Your task to perform on an android device: Go to location settings Image 0: 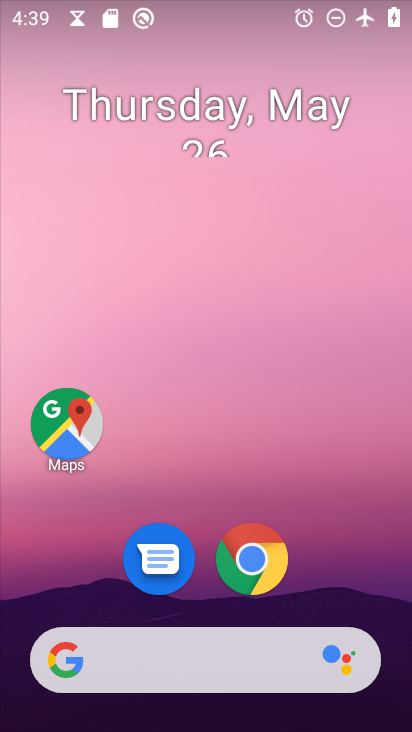
Step 0: drag from (363, 561) to (243, 6)
Your task to perform on an android device: Go to location settings Image 1: 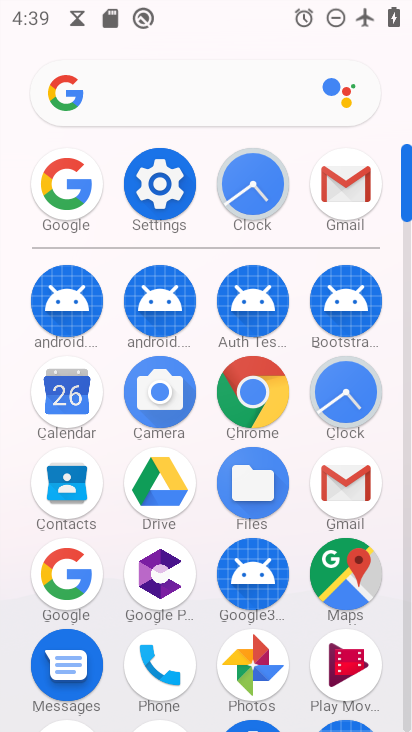
Step 1: click (161, 191)
Your task to perform on an android device: Go to location settings Image 2: 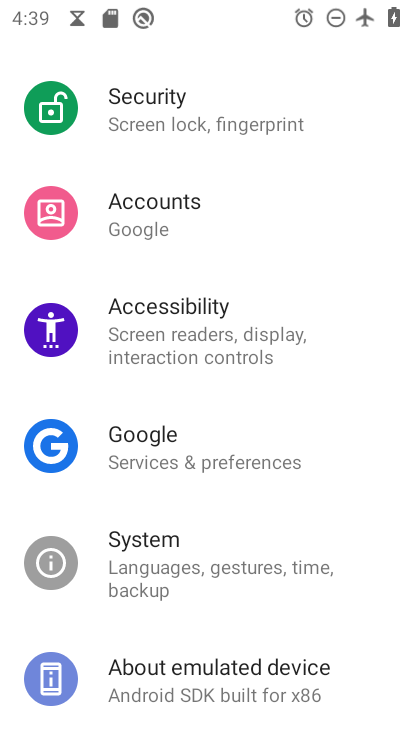
Step 2: drag from (238, 595) to (241, 168)
Your task to perform on an android device: Go to location settings Image 3: 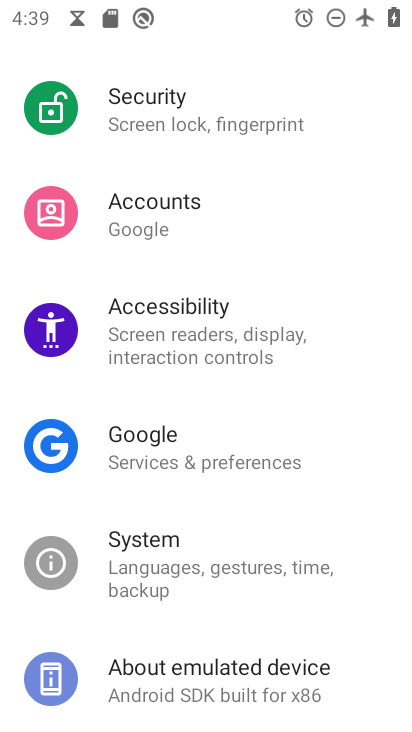
Step 3: drag from (275, 207) to (210, 728)
Your task to perform on an android device: Go to location settings Image 4: 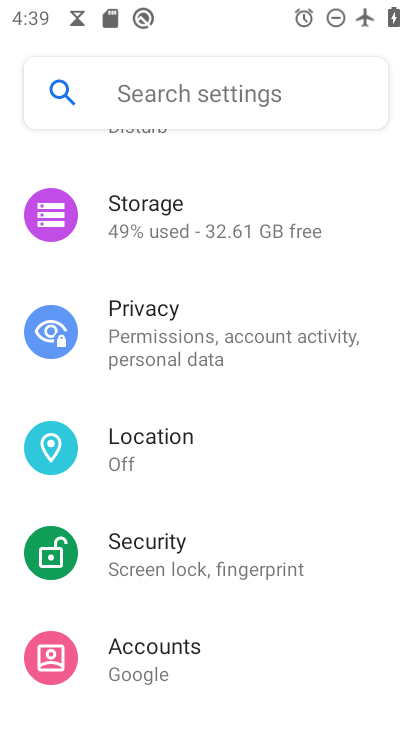
Step 4: click (190, 458)
Your task to perform on an android device: Go to location settings Image 5: 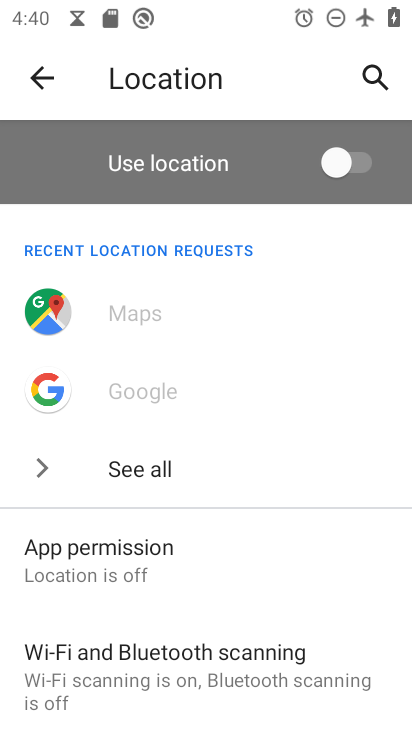
Step 5: task complete